Your task to perform on an android device: Go to display settings Image 0: 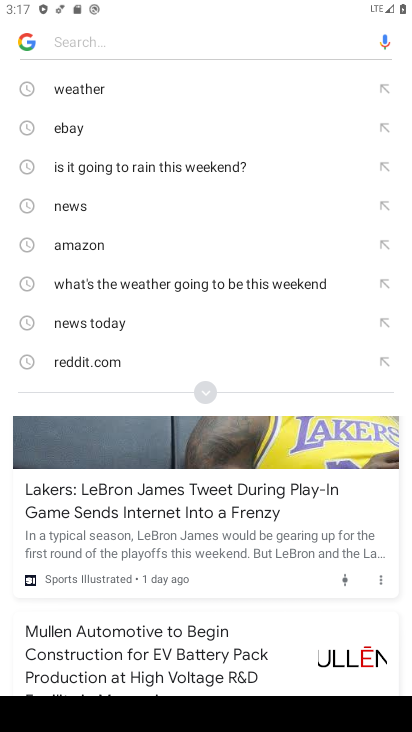
Step 0: press home button
Your task to perform on an android device: Go to display settings Image 1: 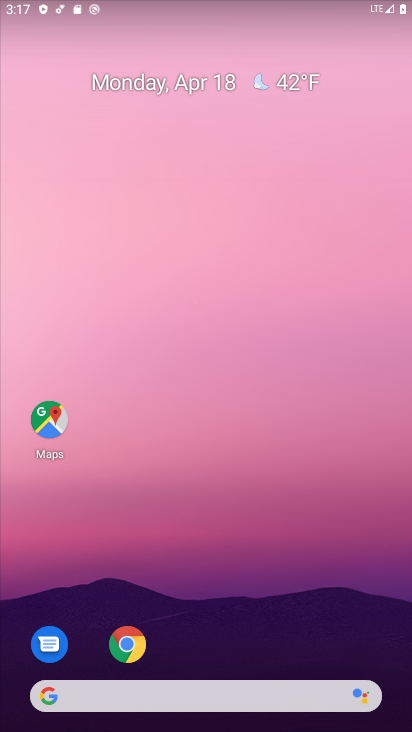
Step 1: drag from (231, 671) to (236, 273)
Your task to perform on an android device: Go to display settings Image 2: 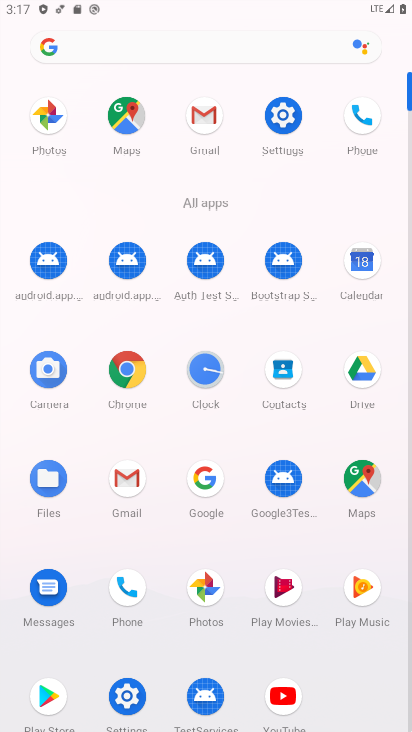
Step 2: click (289, 116)
Your task to perform on an android device: Go to display settings Image 3: 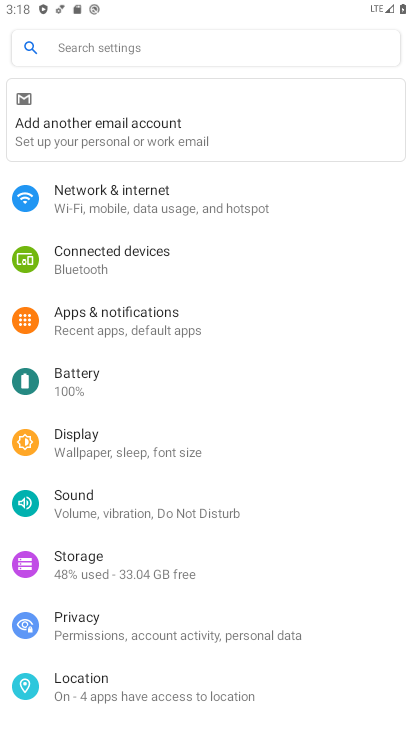
Step 3: click (100, 442)
Your task to perform on an android device: Go to display settings Image 4: 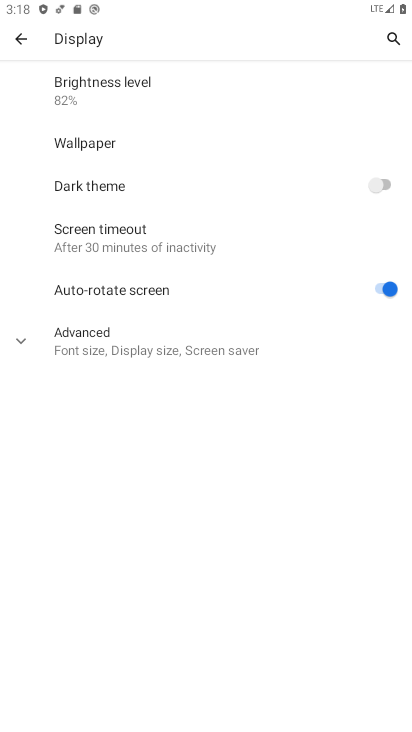
Step 4: click (185, 346)
Your task to perform on an android device: Go to display settings Image 5: 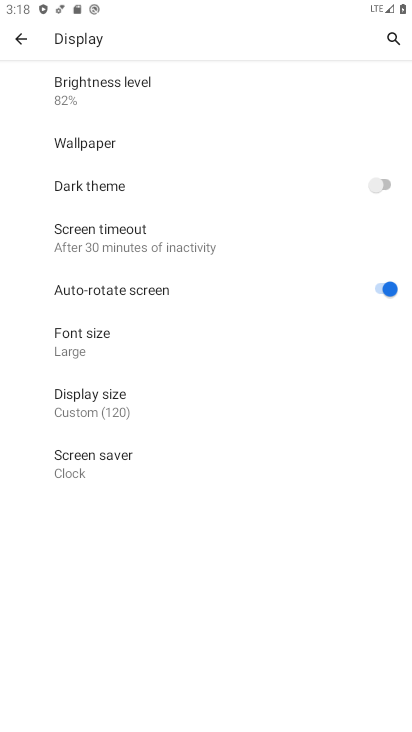
Step 5: task complete